Your task to perform on an android device: turn off wifi Image 0: 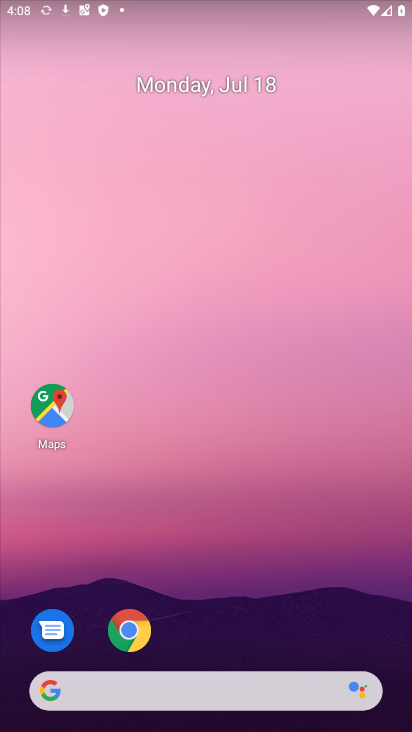
Step 0: drag from (369, 621) to (356, 299)
Your task to perform on an android device: turn off wifi Image 1: 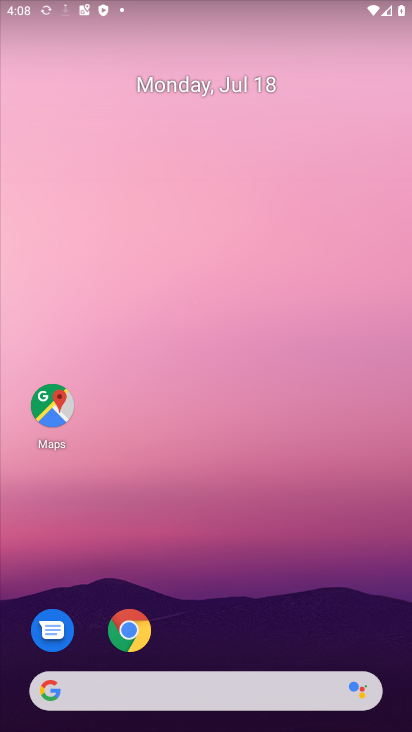
Step 1: drag from (353, 612) to (322, 155)
Your task to perform on an android device: turn off wifi Image 2: 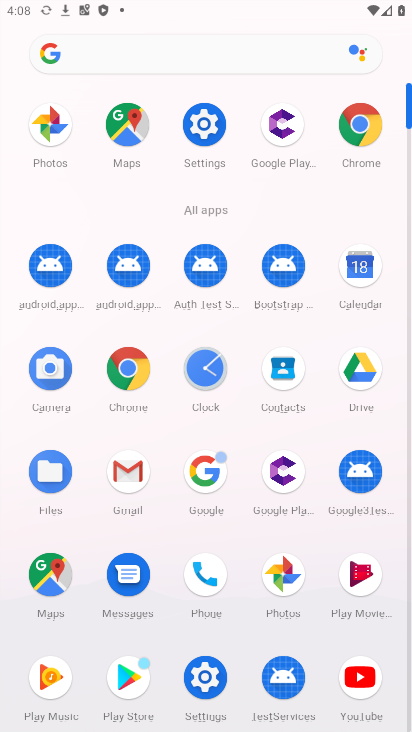
Step 2: click (205, 674)
Your task to perform on an android device: turn off wifi Image 3: 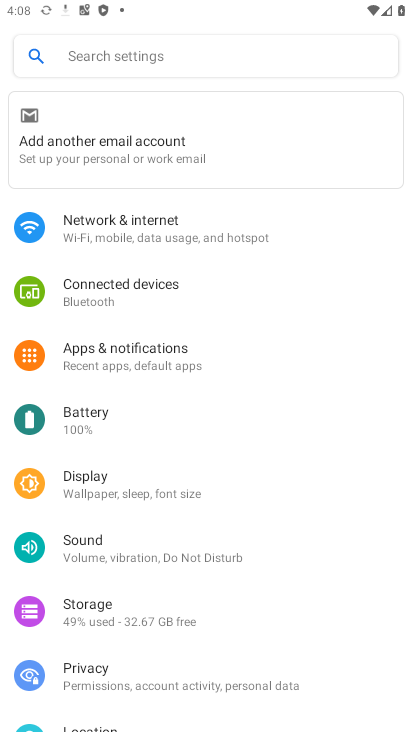
Step 3: click (107, 237)
Your task to perform on an android device: turn off wifi Image 4: 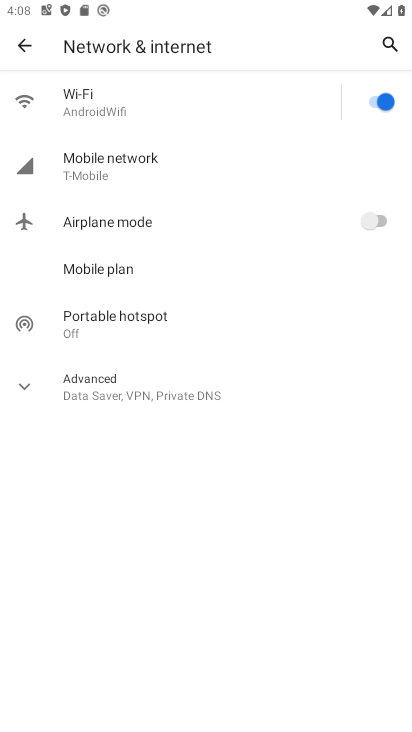
Step 4: click (373, 100)
Your task to perform on an android device: turn off wifi Image 5: 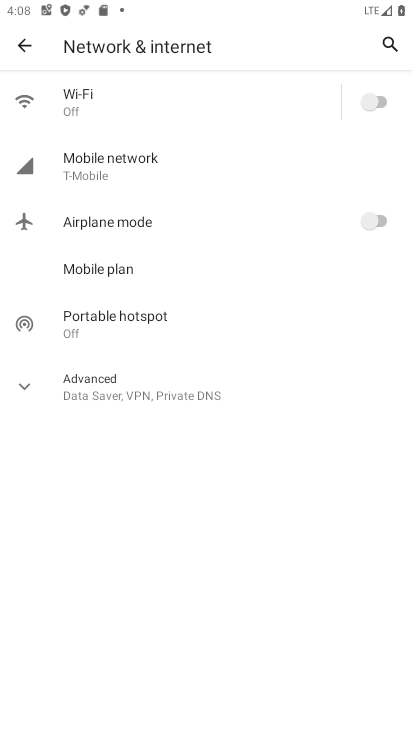
Step 5: task complete